Your task to perform on an android device: toggle pop-ups in chrome Image 0: 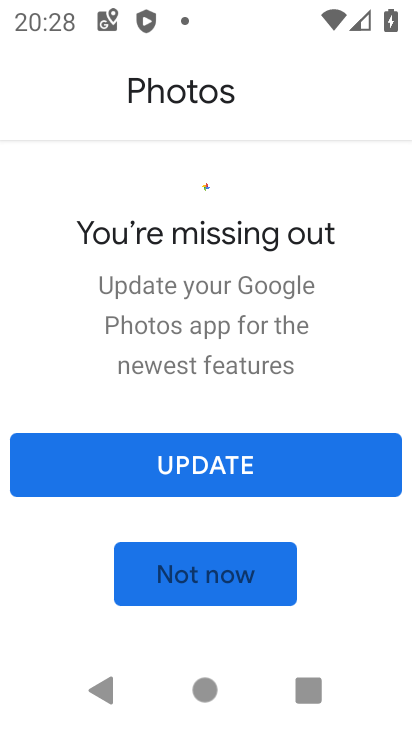
Step 0: press home button
Your task to perform on an android device: toggle pop-ups in chrome Image 1: 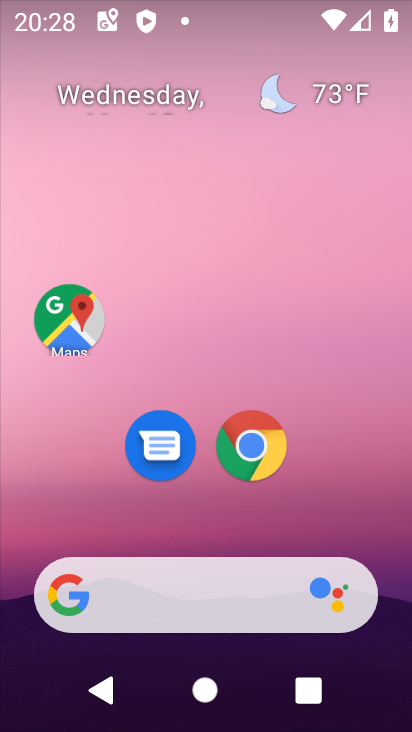
Step 1: drag from (326, 522) to (304, 123)
Your task to perform on an android device: toggle pop-ups in chrome Image 2: 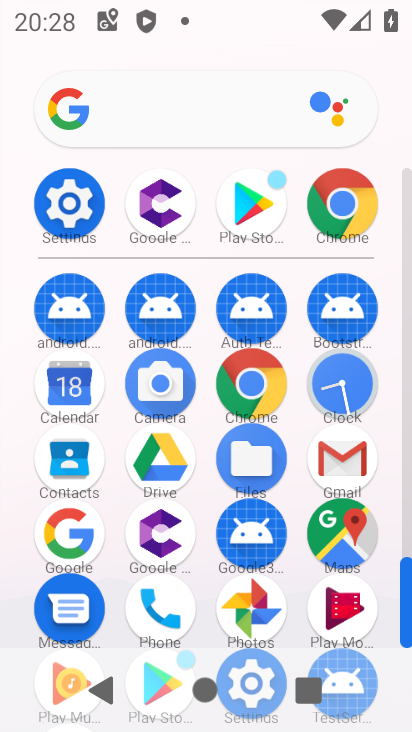
Step 2: click (330, 205)
Your task to perform on an android device: toggle pop-ups in chrome Image 3: 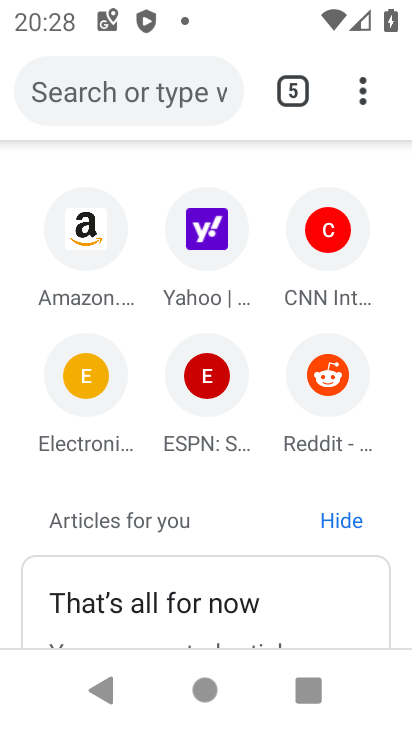
Step 3: click (361, 96)
Your task to perform on an android device: toggle pop-ups in chrome Image 4: 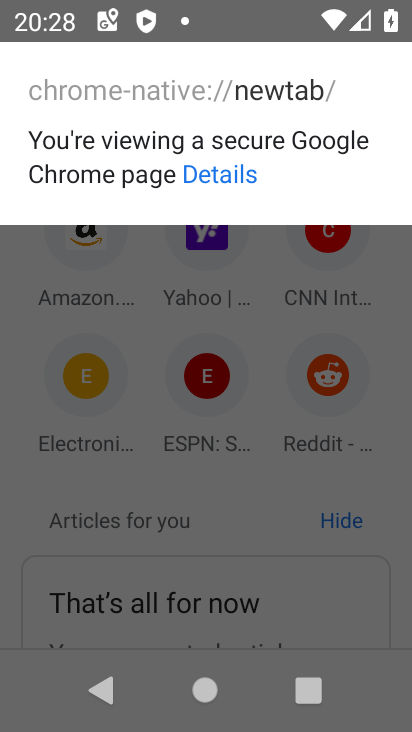
Step 4: press back button
Your task to perform on an android device: toggle pop-ups in chrome Image 5: 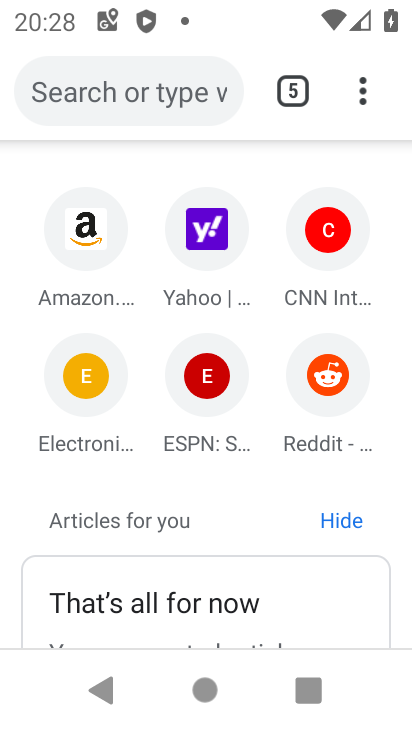
Step 5: click (381, 81)
Your task to perform on an android device: toggle pop-ups in chrome Image 6: 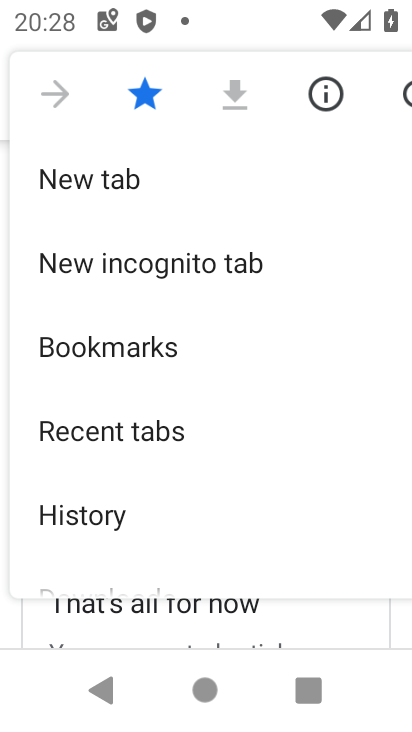
Step 6: drag from (206, 533) to (288, 132)
Your task to perform on an android device: toggle pop-ups in chrome Image 7: 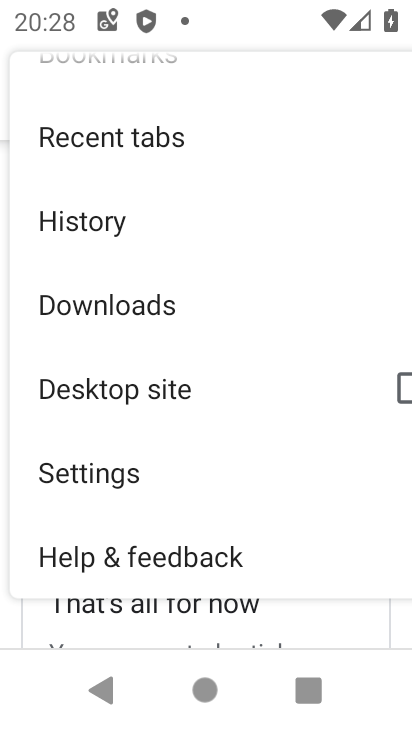
Step 7: drag from (160, 496) to (234, 266)
Your task to perform on an android device: toggle pop-ups in chrome Image 8: 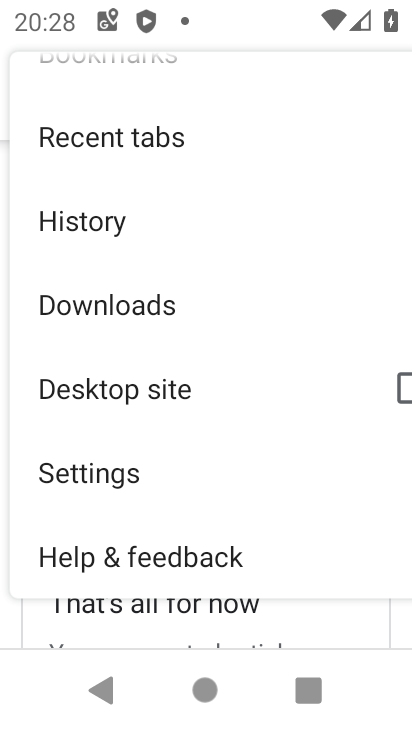
Step 8: click (95, 466)
Your task to perform on an android device: toggle pop-ups in chrome Image 9: 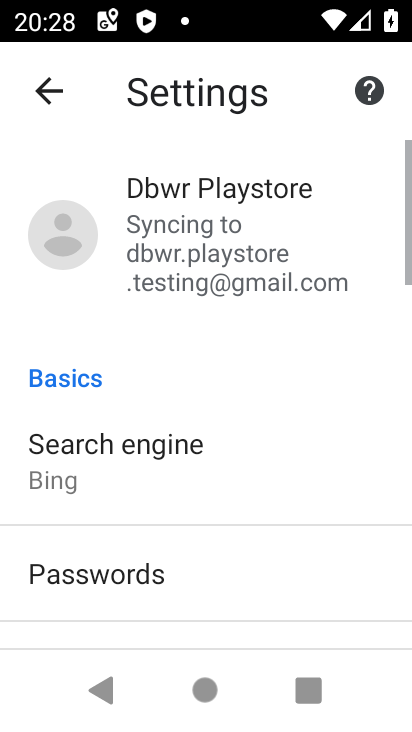
Step 9: drag from (215, 552) to (226, 192)
Your task to perform on an android device: toggle pop-ups in chrome Image 10: 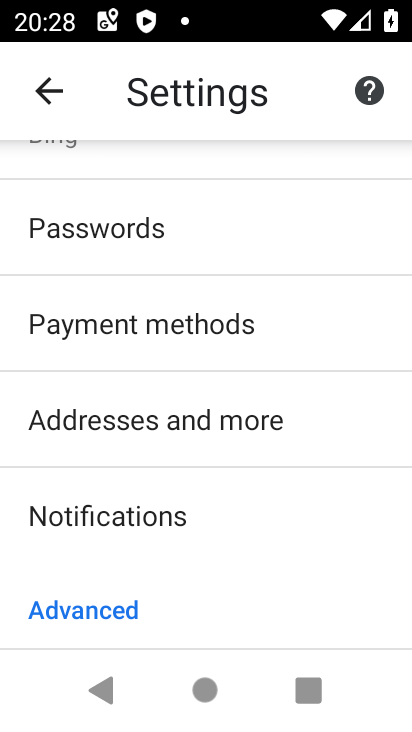
Step 10: drag from (258, 498) to (290, 139)
Your task to perform on an android device: toggle pop-ups in chrome Image 11: 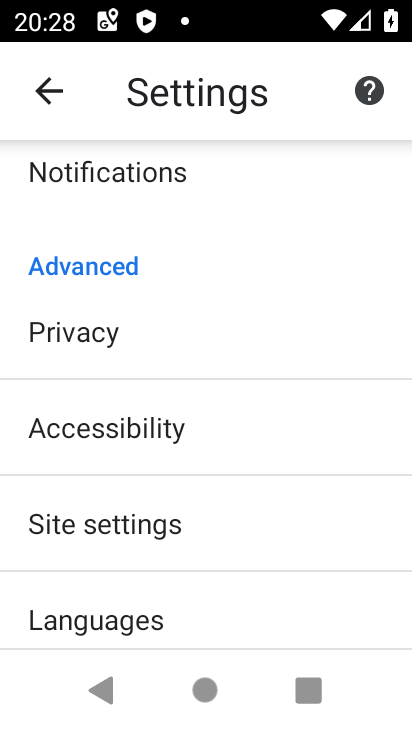
Step 11: click (156, 540)
Your task to perform on an android device: toggle pop-ups in chrome Image 12: 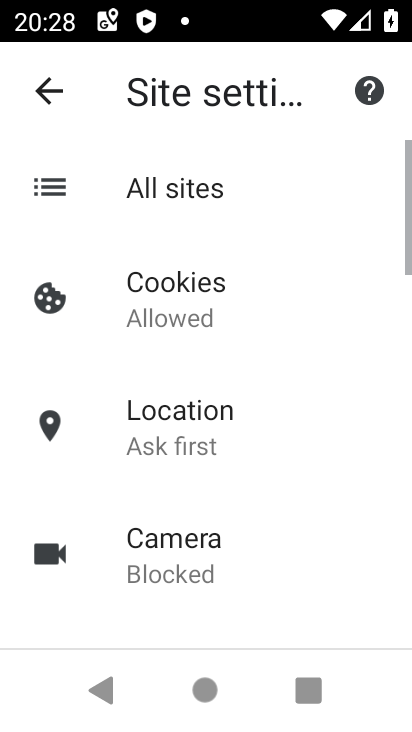
Step 12: drag from (191, 586) to (217, 159)
Your task to perform on an android device: toggle pop-ups in chrome Image 13: 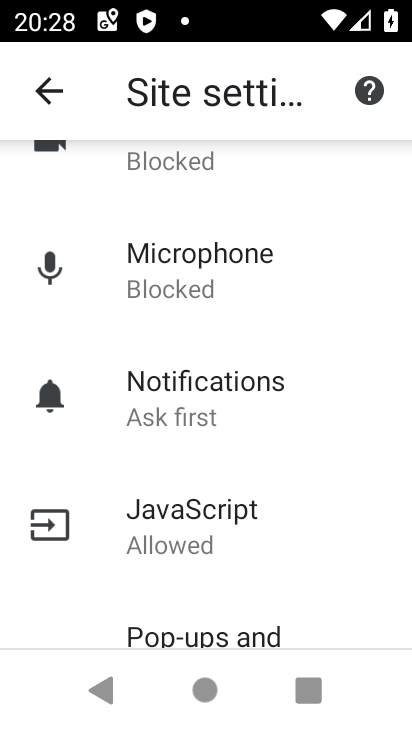
Step 13: drag from (156, 582) to (217, 338)
Your task to perform on an android device: toggle pop-ups in chrome Image 14: 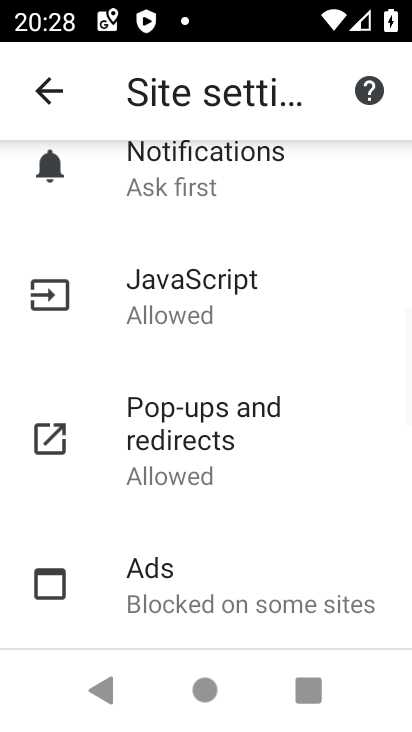
Step 14: click (159, 475)
Your task to perform on an android device: toggle pop-ups in chrome Image 15: 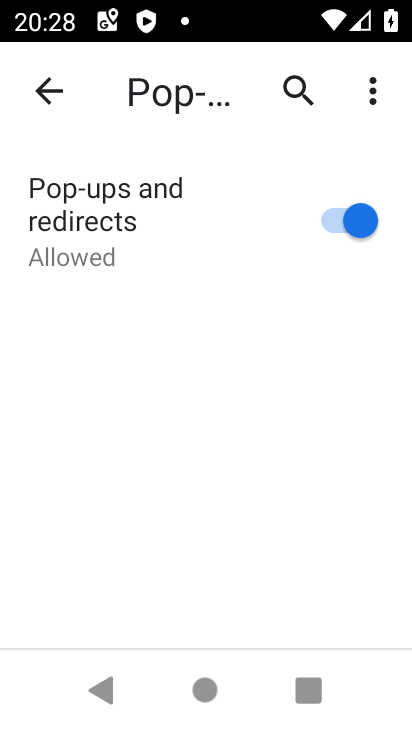
Step 15: click (344, 219)
Your task to perform on an android device: toggle pop-ups in chrome Image 16: 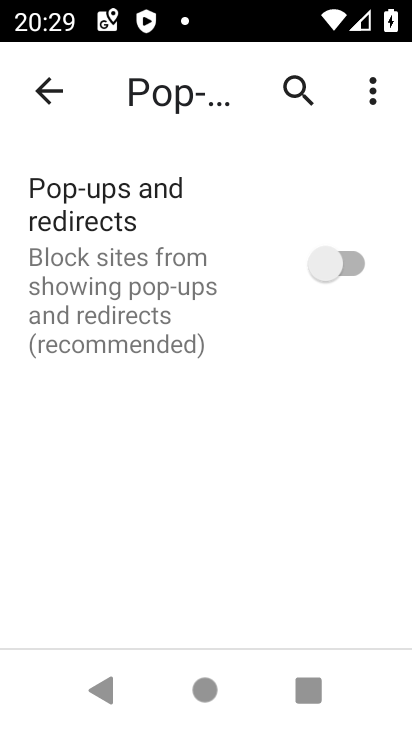
Step 16: task complete